Your task to perform on an android device: Open internet settings Image 0: 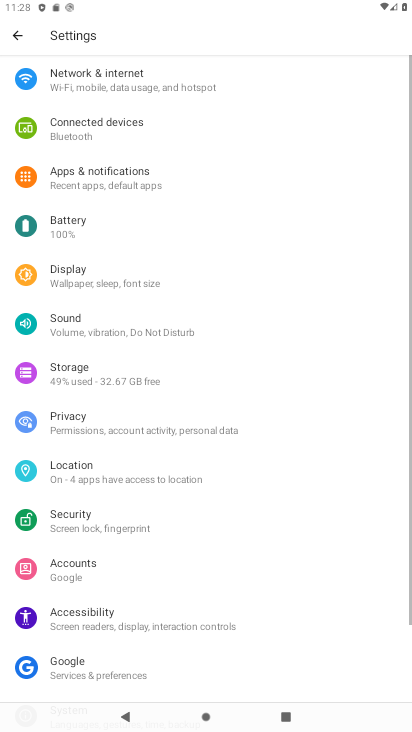
Step 0: click (120, 75)
Your task to perform on an android device: Open internet settings Image 1: 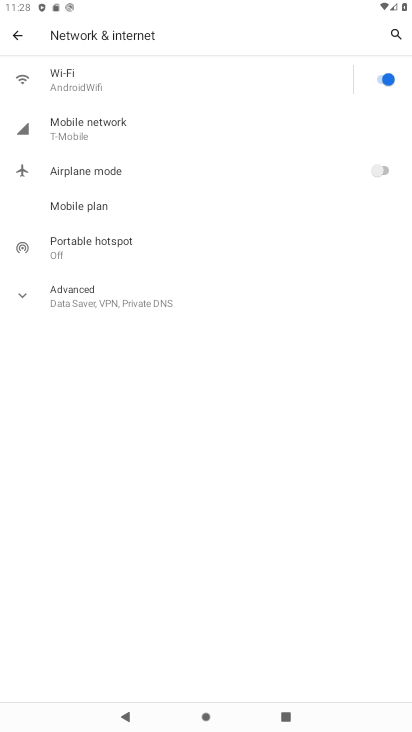
Step 1: click (60, 73)
Your task to perform on an android device: Open internet settings Image 2: 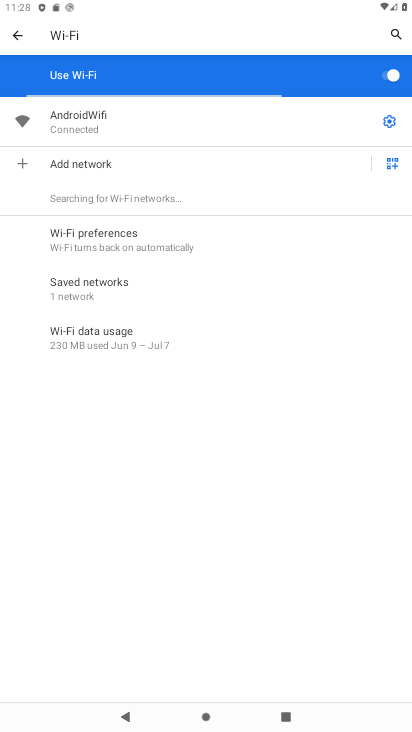
Step 2: task complete